Your task to perform on an android device: What is the recent news? Image 0: 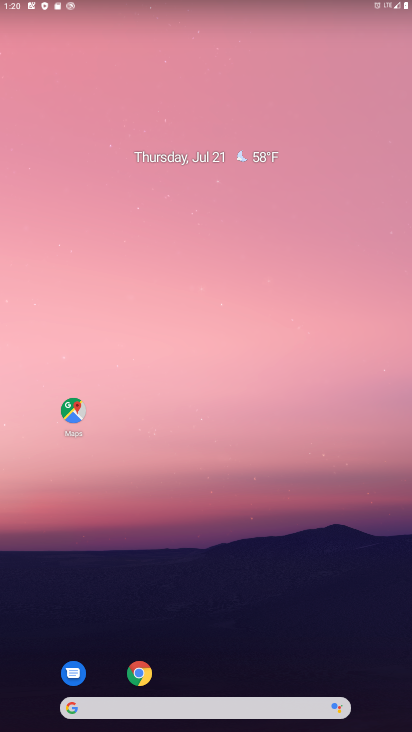
Step 0: drag from (219, 645) to (218, 165)
Your task to perform on an android device: What is the recent news? Image 1: 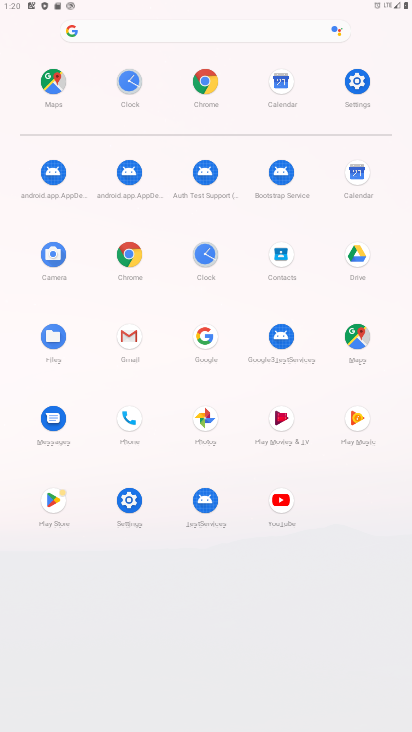
Step 1: click (214, 81)
Your task to perform on an android device: What is the recent news? Image 2: 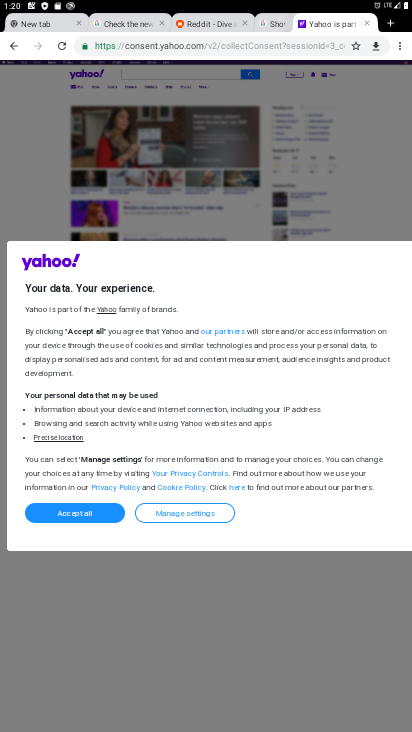
Step 2: click (397, 20)
Your task to perform on an android device: What is the recent news? Image 3: 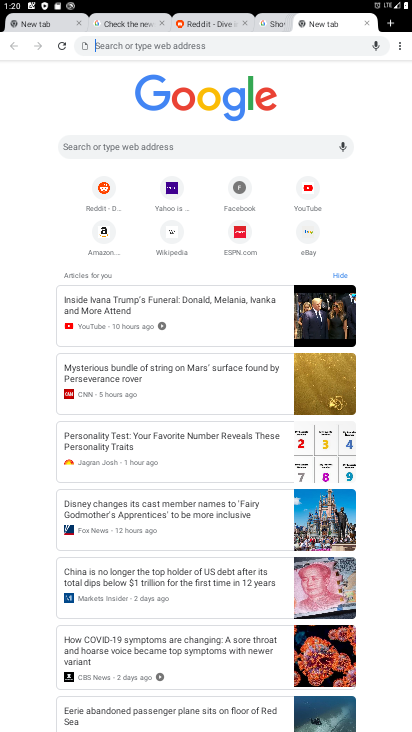
Step 3: click (154, 146)
Your task to perform on an android device: What is the recent news? Image 4: 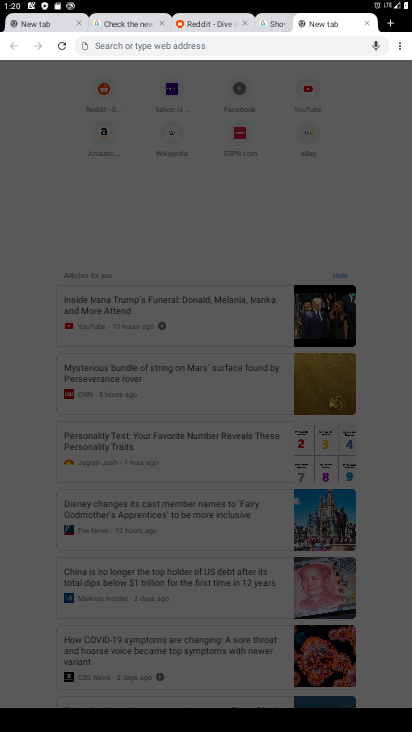
Step 4: type "What is the recent news "
Your task to perform on an android device: What is the recent news? Image 5: 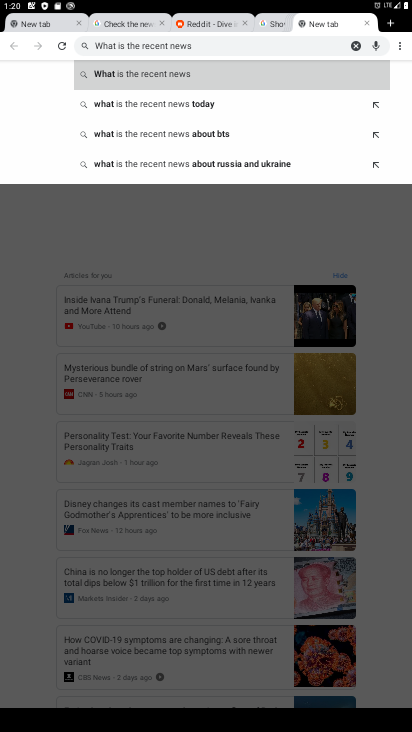
Step 5: click (171, 66)
Your task to perform on an android device: What is the recent news? Image 6: 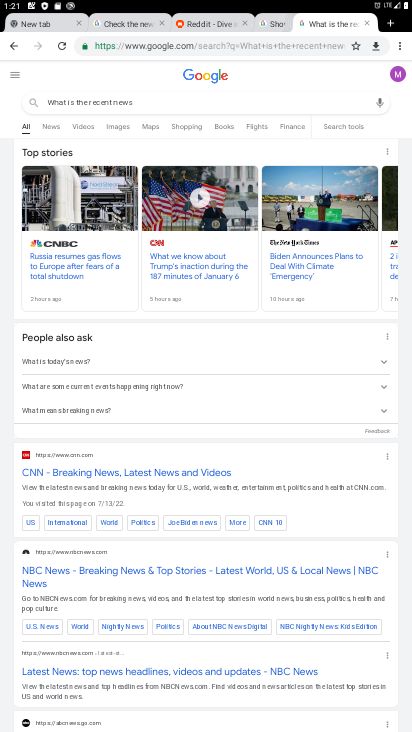
Step 6: task complete